Your task to perform on an android device: open app "Pinterest" Image 0: 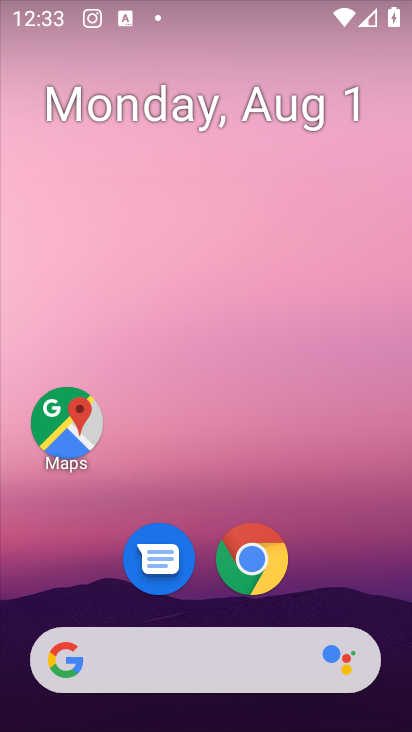
Step 0: drag from (87, 543) to (215, 44)
Your task to perform on an android device: open app "Pinterest" Image 1: 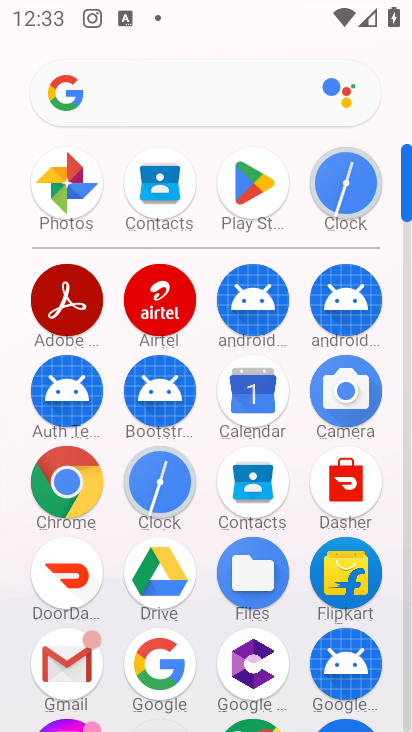
Step 1: click (256, 178)
Your task to perform on an android device: open app "Pinterest" Image 2: 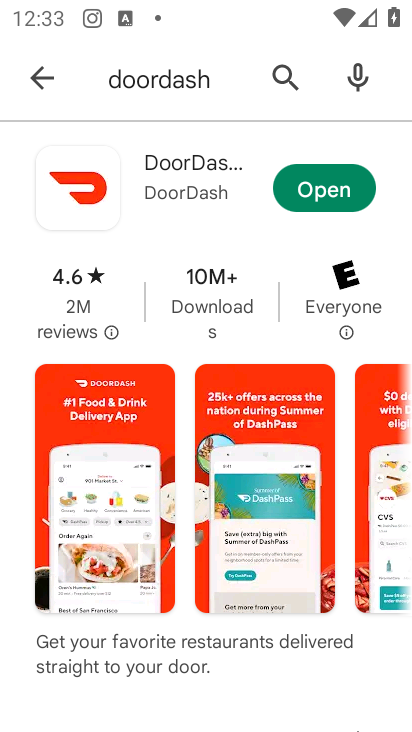
Step 2: click (293, 73)
Your task to perform on an android device: open app "Pinterest" Image 3: 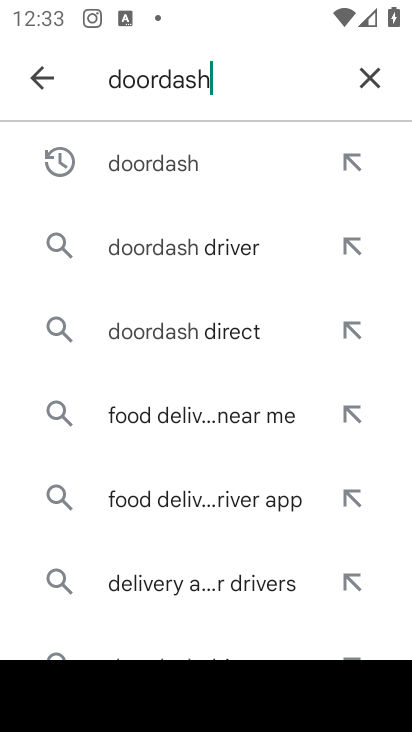
Step 3: click (368, 76)
Your task to perform on an android device: open app "Pinterest" Image 4: 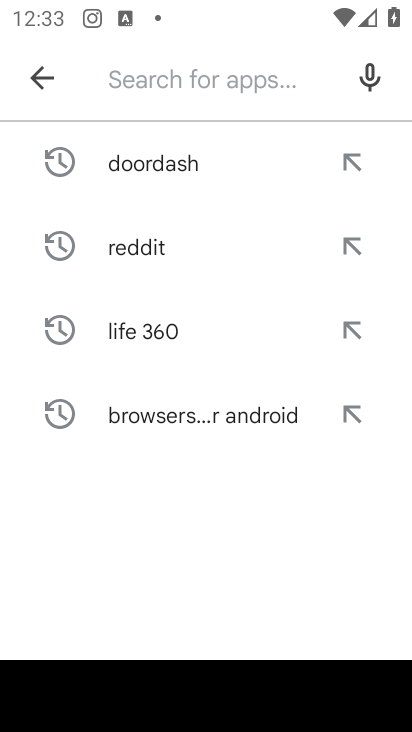
Step 4: click (161, 90)
Your task to perform on an android device: open app "Pinterest" Image 5: 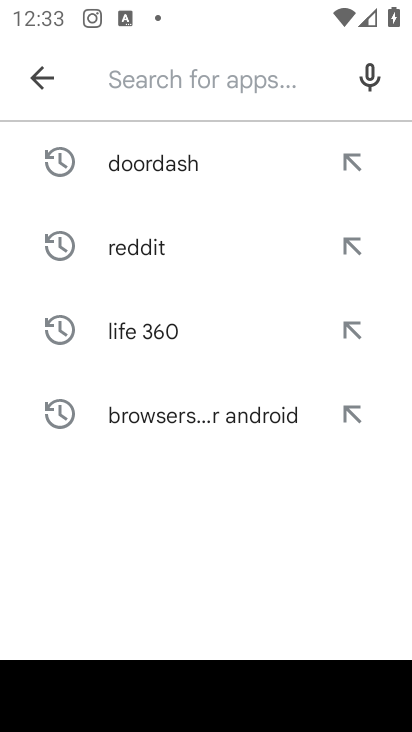
Step 5: type "pinterest"
Your task to perform on an android device: open app "Pinterest" Image 6: 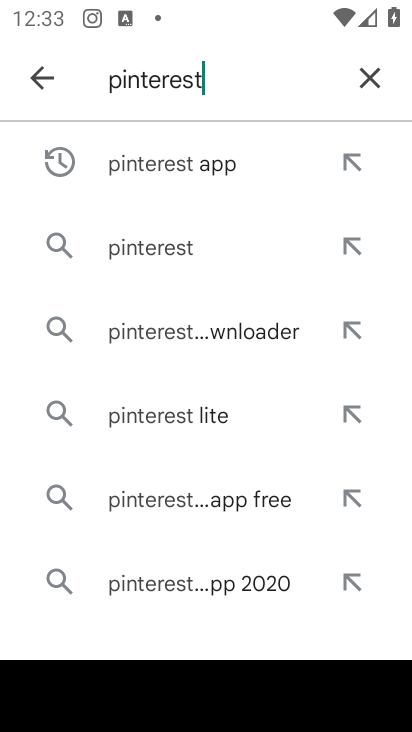
Step 6: click (199, 162)
Your task to perform on an android device: open app "Pinterest" Image 7: 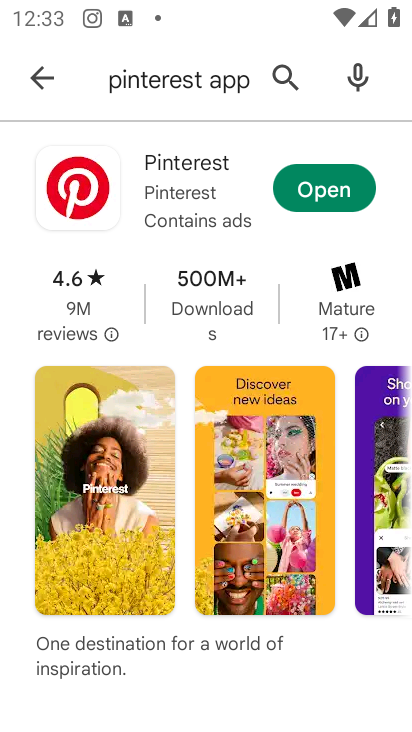
Step 7: click (323, 187)
Your task to perform on an android device: open app "Pinterest" Image 8: 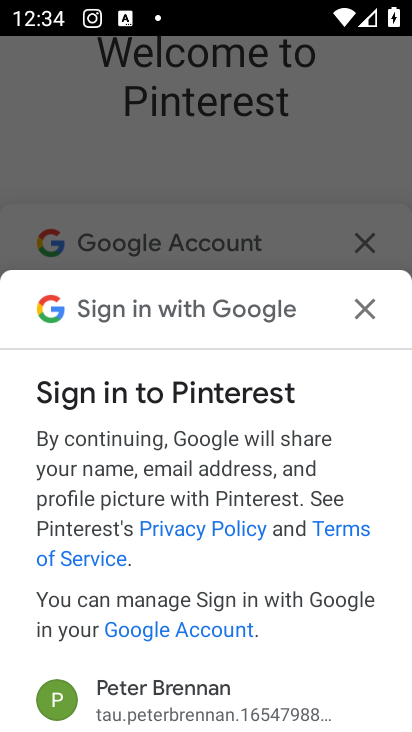
Step 8: task complete